Your task to perform on an android device: check storage Image 0: 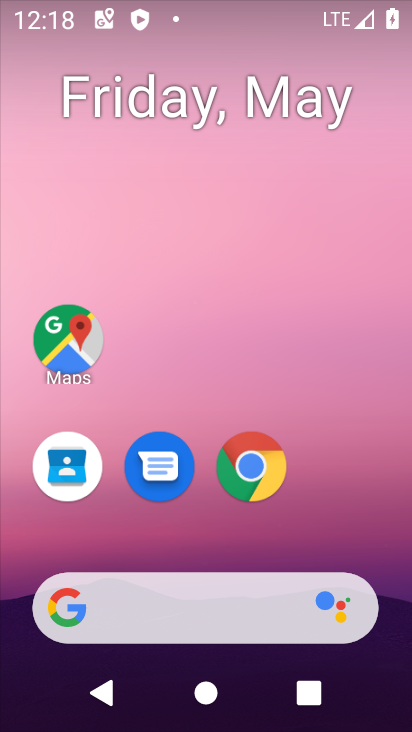
Step 0: drag from (262, 538) to (196, 7)
Your task to perform on an android device: check storage Image 1: 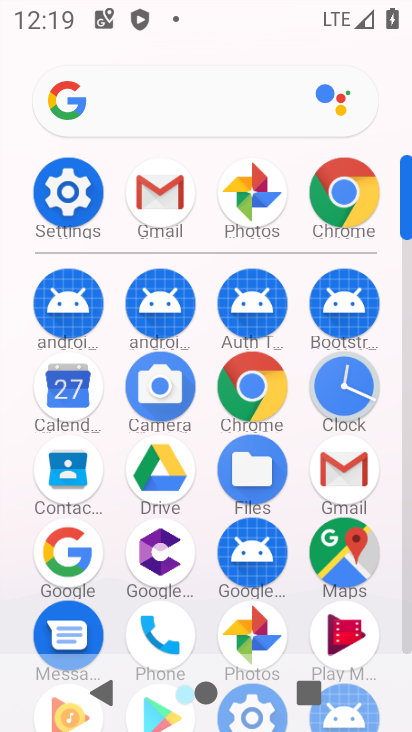
Step 1: click (69, 194)
Your task to perform on an android device: check storage Image 2: 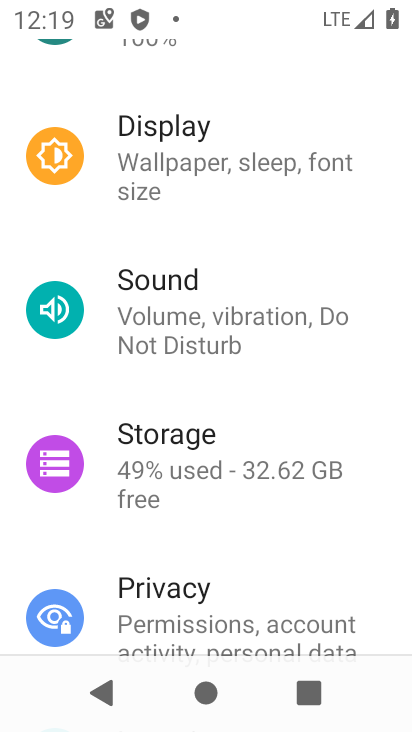
Step 2: click (180, 462)
Your task to perform on an android device: check storage Image 3: 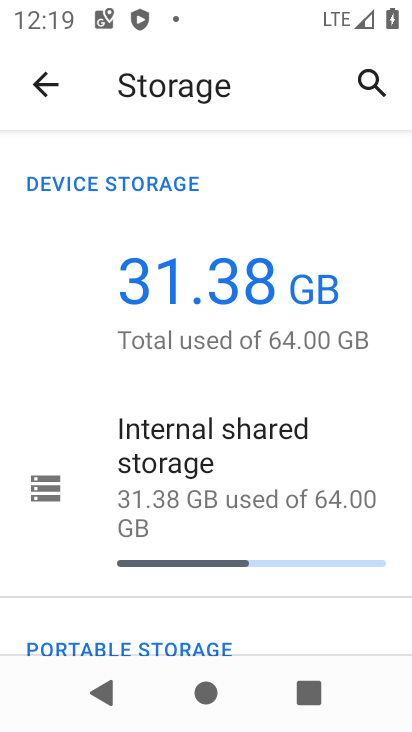
Step 3: task complete